Your task to perform on an android device: toggle wifi Image 0: 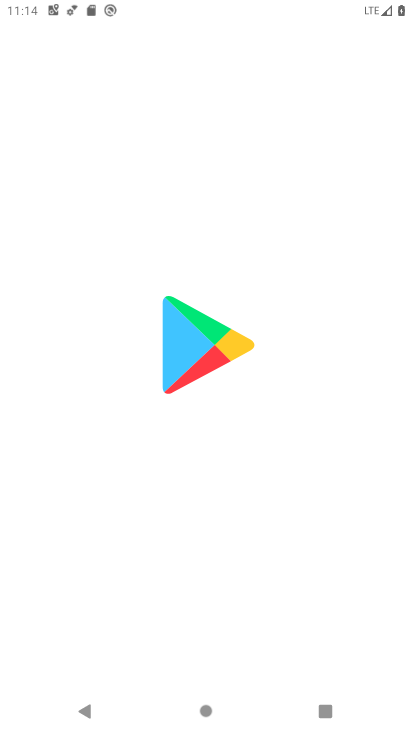
Step 0: drag from (250, 692) to (354, 249)
Your task to perform on an android device: toggle wifi Image 1: 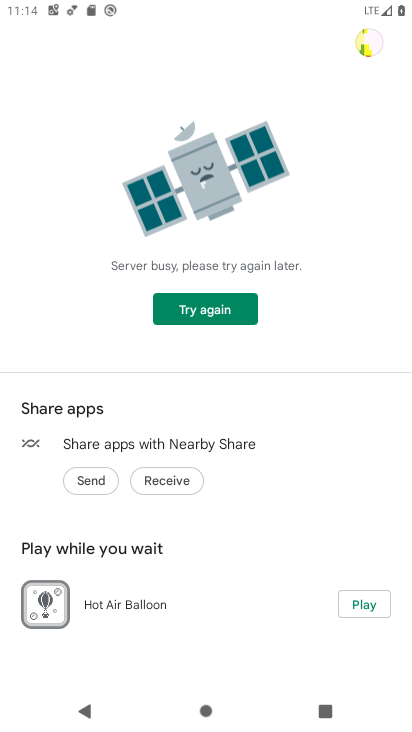
Step 1: press home button
Your task to perform on an android device: toggle wifi Image 2: 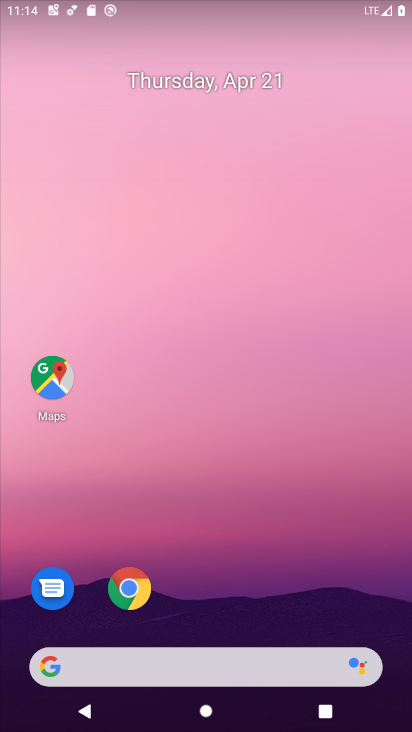
Step 2: drag from (189, 687) to (200, 138)
Your task to perform on an android device: toggle wifi Image 3: 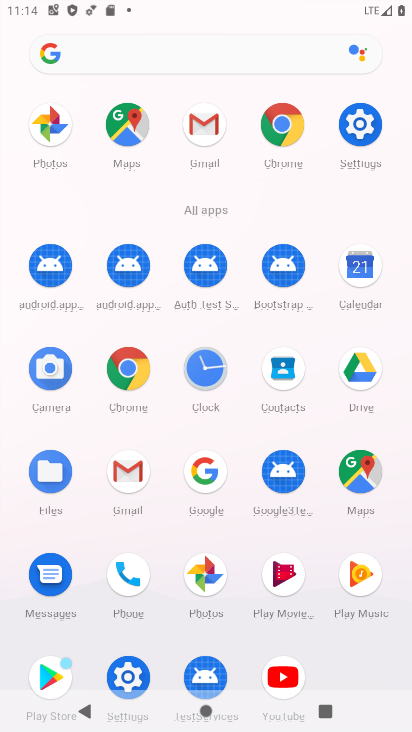
Step 3: click (355, 123)
Your task to perform on an android device: toggle wifi Image 4: 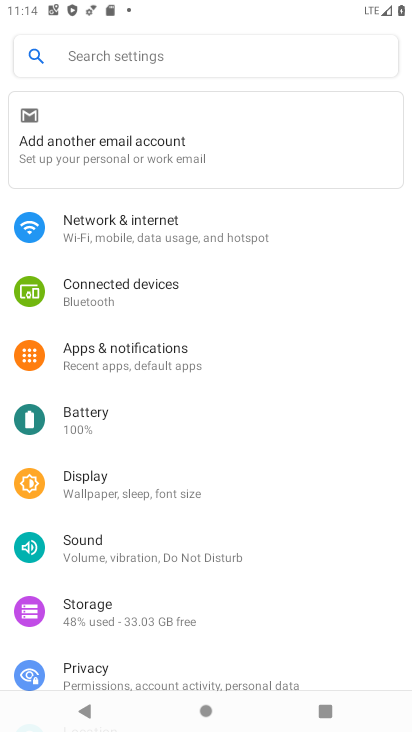
Step 4: click (114, 219)
Your task to perform on an android device: toggle wifi Image 5: 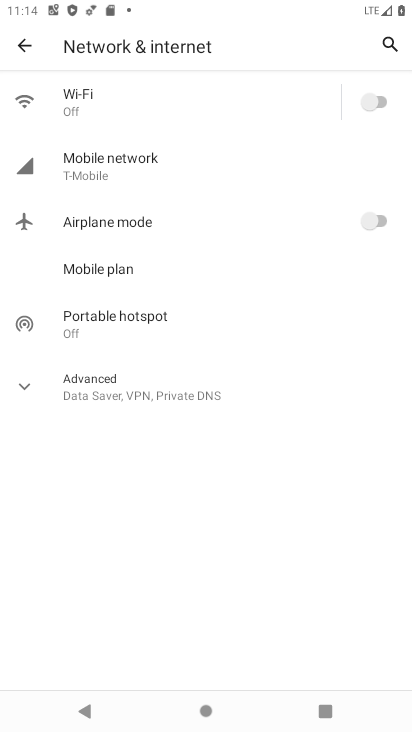
Step 5: click (135, 106)
Your task to perform on an android device: toggle wifi Image 6: 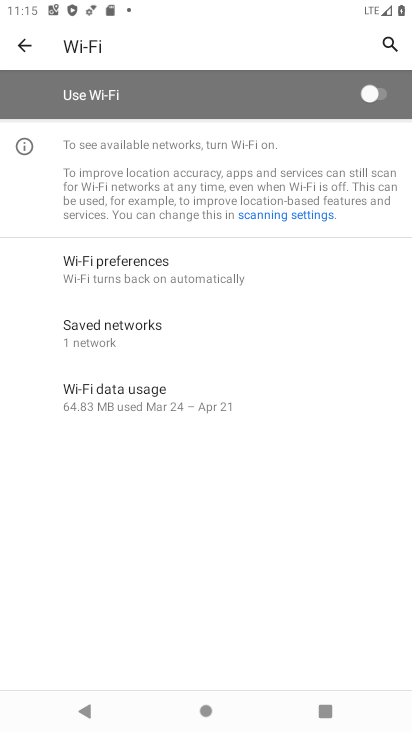
Step 6: task complete